Your task to perform on an android device: check battery use Image 0: 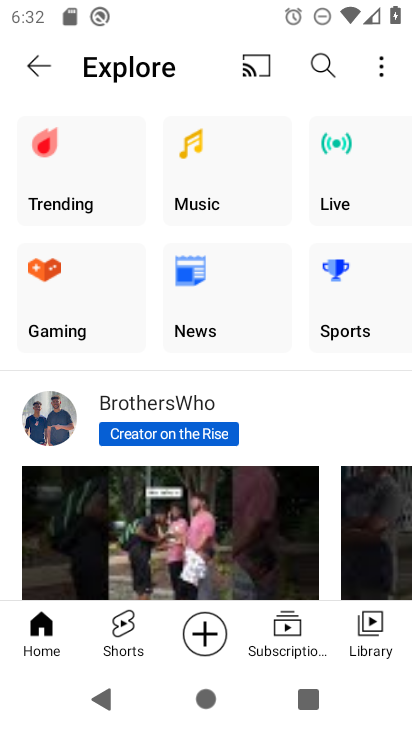
Step 0: press home button
Your task to perform on an android device: check battery use Image 1: 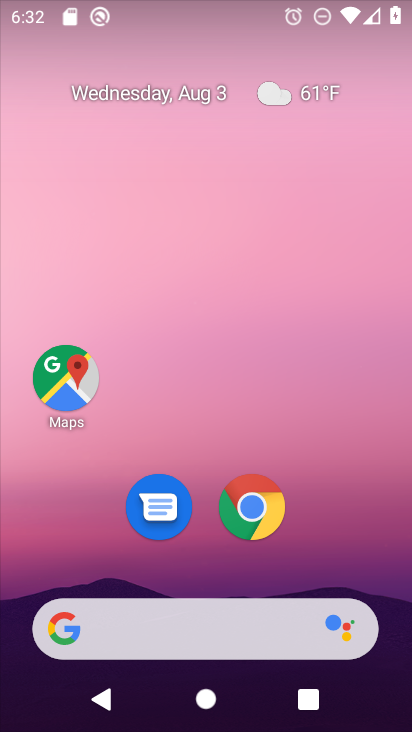
Step 1: drag from (323, 514) to (277, 0)
Your task to perform on an android device: check battery use Image 2: 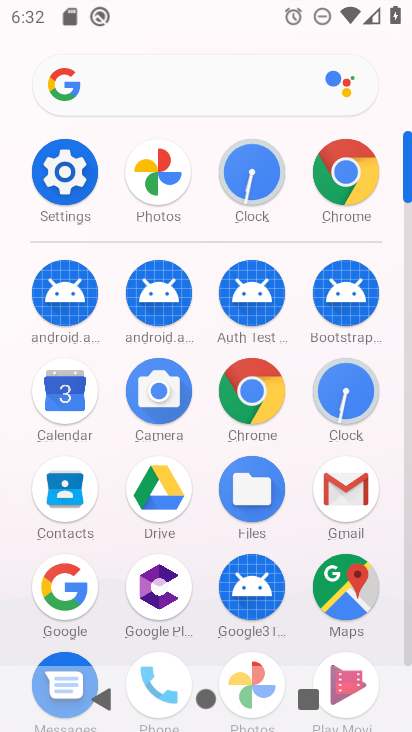
Step 2: click (77, 174)
Your task to perform on an android device: check battery use Image 3: 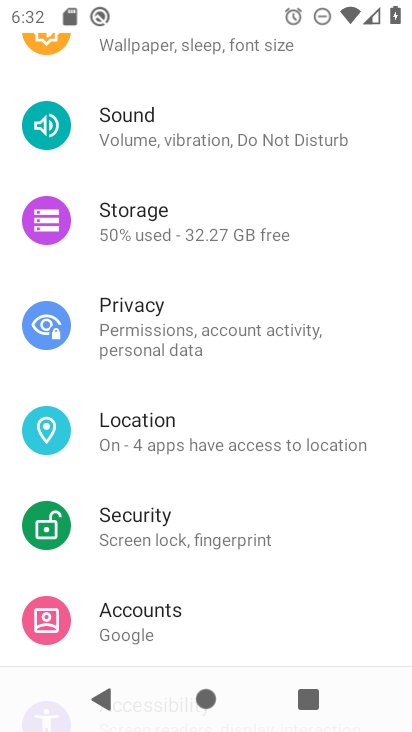
Step 3: drag from (239, 109) to (237, 567)
Your task to perform on an android device: check battery use Image 4: 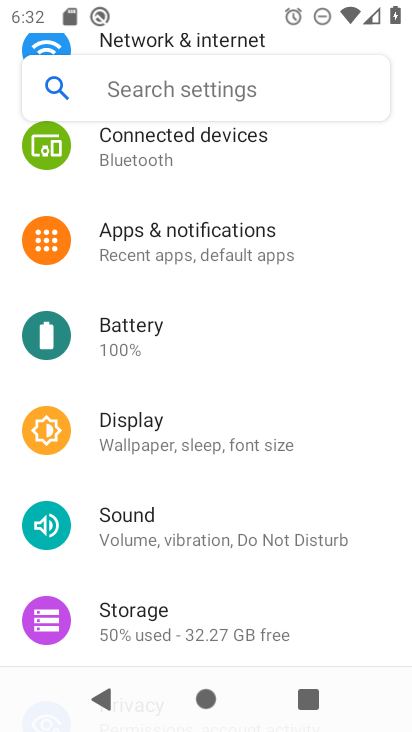
Step 4: click (137, 352)
Your task to perform on an android device: check battery use Image 5: 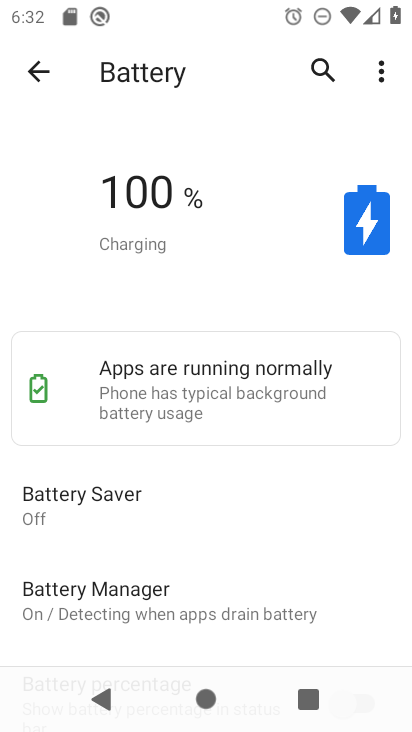
Step 5: click (381, 48)
Your task to perform on an android device: check battery use Image 6: 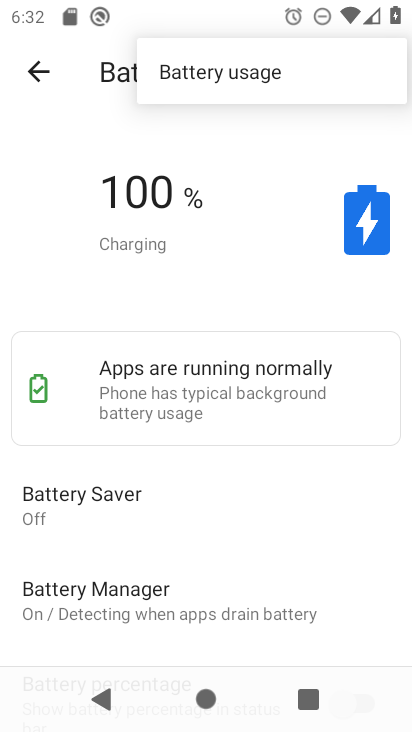
Step 6: click (306, 56)
Your task to perform on an android device: check battery use Image 7: 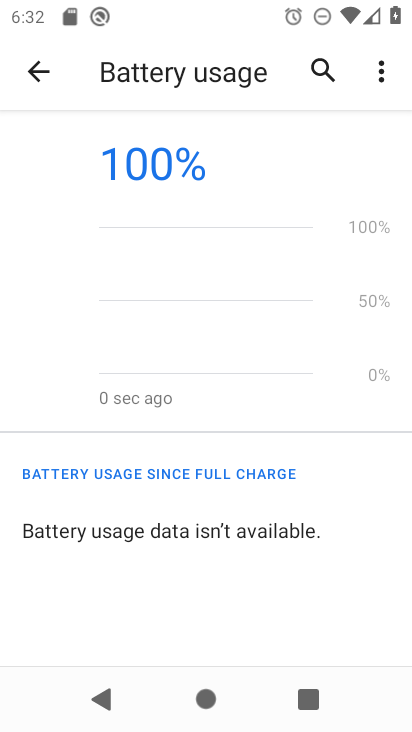
Step 7: task complete